Your task to perform on an android device: turn on bluetooth scan Image 0: 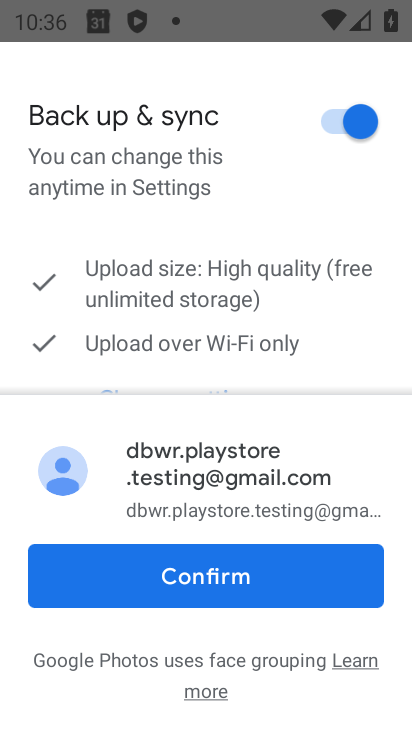
Step 0: press home button
Your task to perform on an android device: turn on bluetooth scan Image 1: 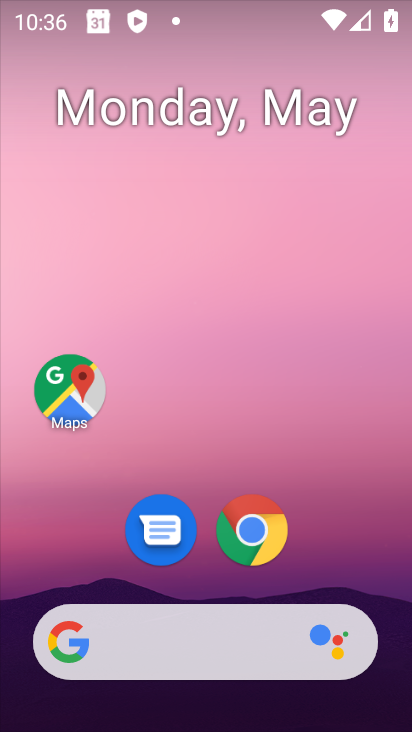
Step 1: drag from (331, 532) to (236, 112)
Your task to perform on an android device: turn on bluetooth scan Image 2: 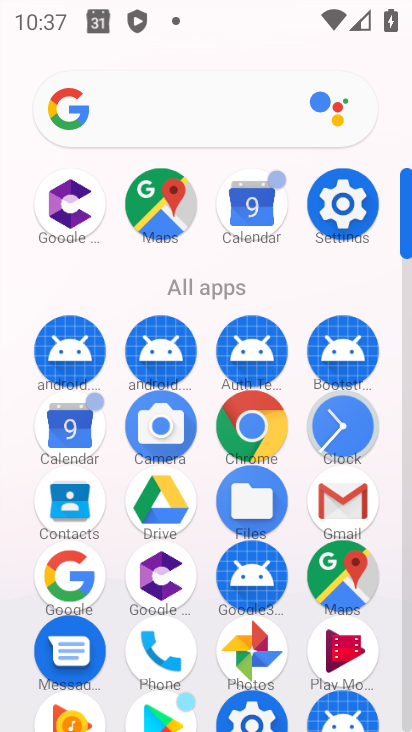
Step 2: click (340, 206)
Your task to perform on an android device: turn on bluetooth scan Image 3: 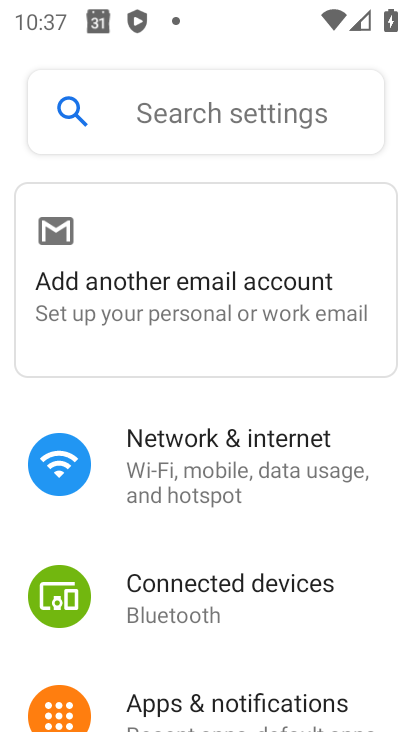
Step 3: drag from (278, 537) to (295, 334)
Your task to perform on an android device: turn on bluetooth scan Image 4: 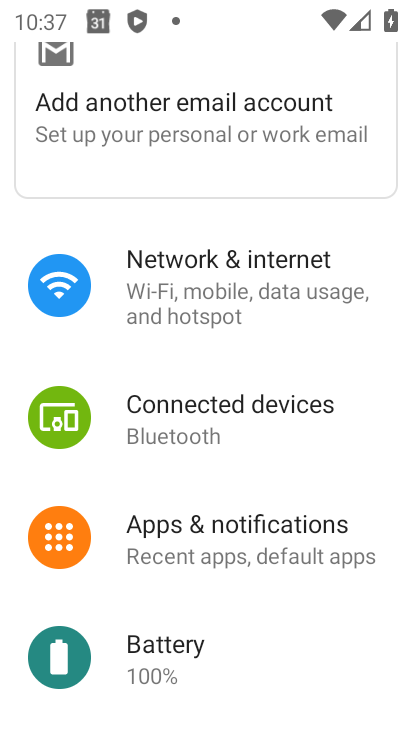
Step 4: drag from (254, 468) to (280, 332)
Your task to perform on an android device: turn on bluetooth scan Image 5: 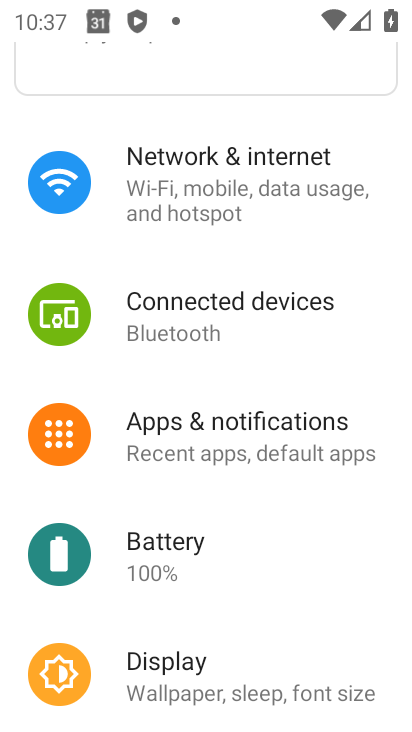
Step 5: drag from (238, 517) to (266, 373)
Your task to perform on an android device: turn on bluetooth scan Image 6: 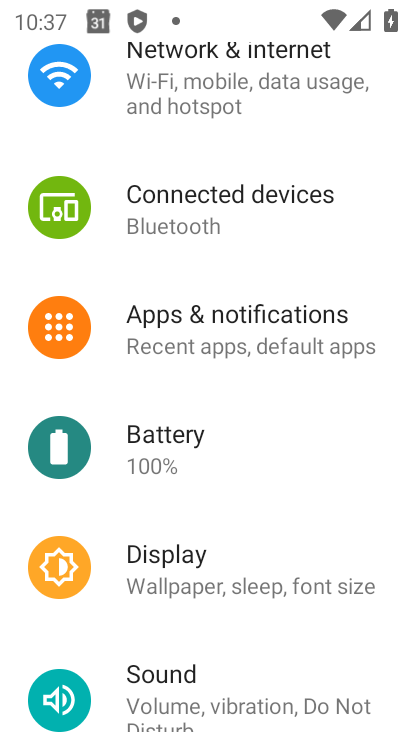
Step 6: drag from (225, 507) to (243, 348)
Your task to perform on an android device: turn on bluetooth scan Image 7: 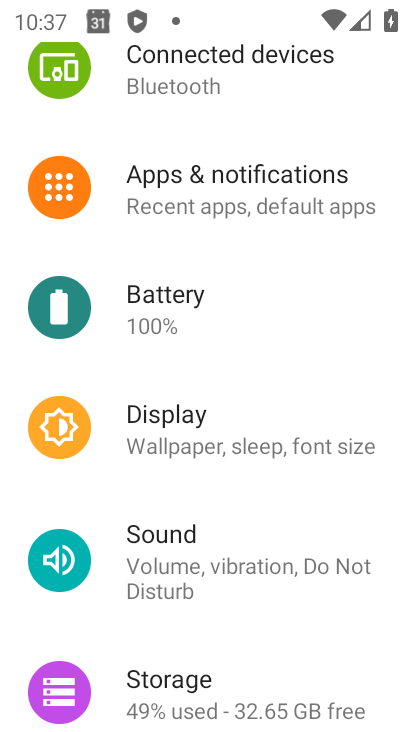
Step 7: drag from (226, 369) to (258, 257)
Your task to perform on an android device: turn on bluetooth scan Image 8: 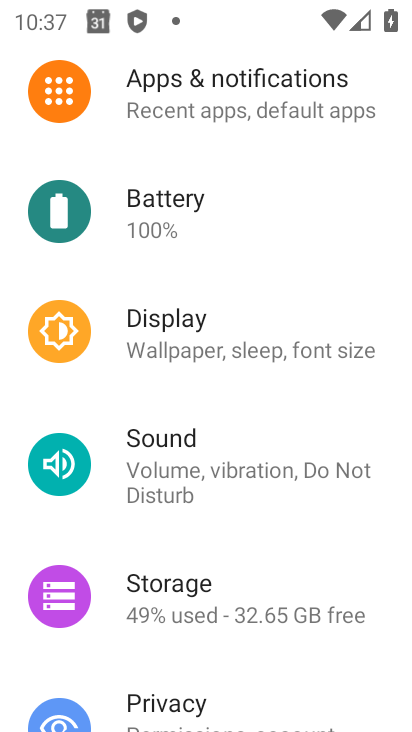
Step 8: drag from (234, 427) to (269, 276)
Your task to perform on an android device: turn on bluetooth scan Image 9: 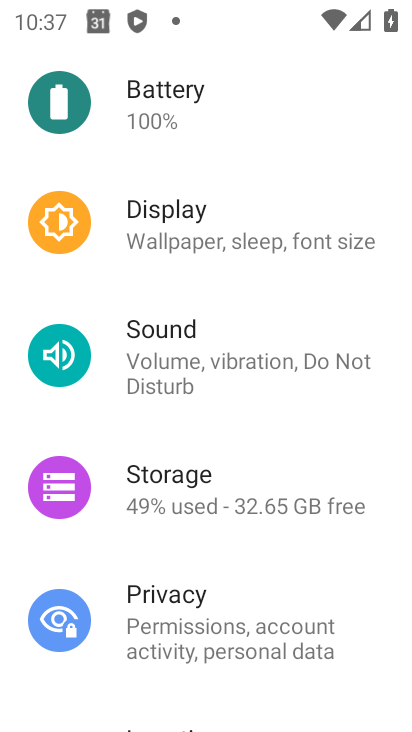
Step 9: drag from (221, 435) to (268, 293)
Your task to perform on an android device: turn on bluetooth scan Image 10: 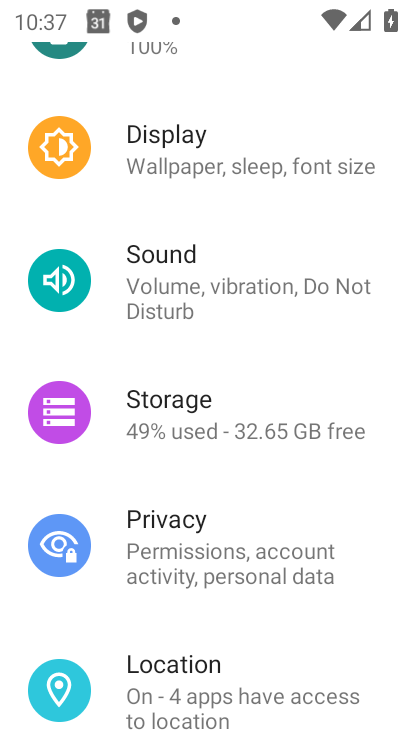
Step 10: drag from (252, 468) to (273, 308)
Your task to perform on an android device: turn on bluetooth scan Image 11: 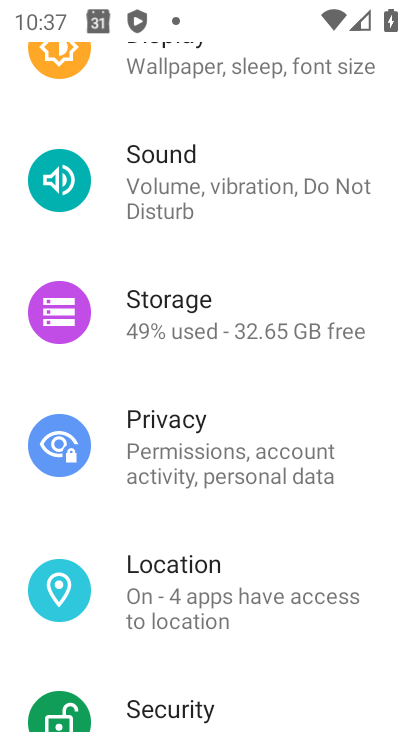
Step 11: click (178, 569)
Your task to perform on an android device: turn on bluetooth scan Image 12: 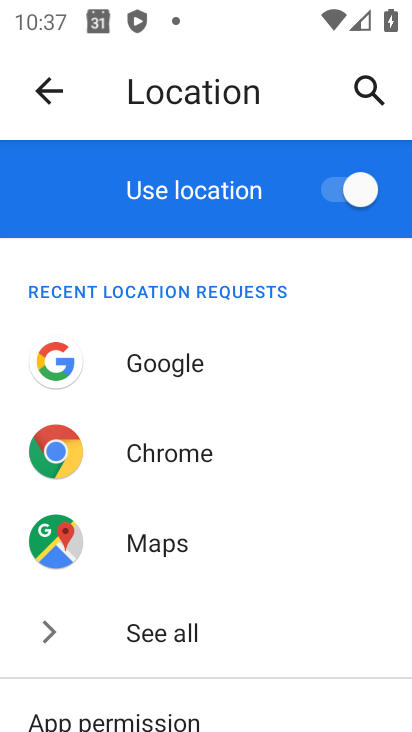
Step 12: drag from (242, 606) to (297, 428)
Your task to perform on an android device: turn on bluetooth scan Image 13: 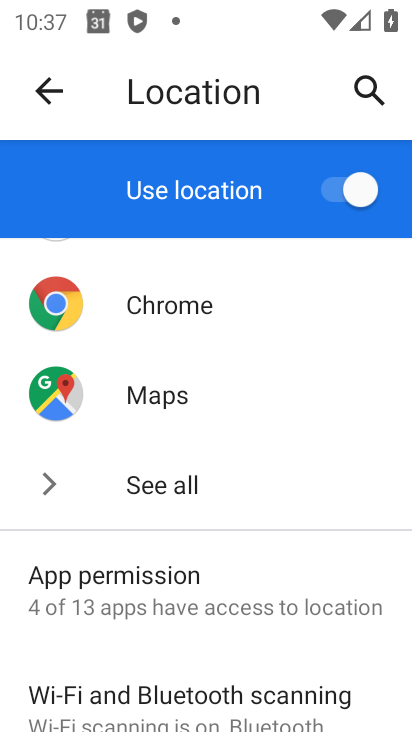
Step 13: drag from (241, 577) to (302, 422)
Your task to perform on an android device: turn on bluetooth scan Image 14: 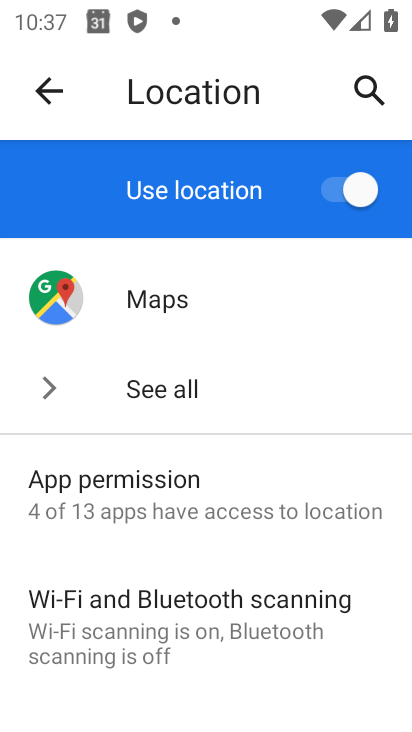
Step 14: click (222, 608)
Your task to perform on an android device: turn on bluetooth scan Image 15: 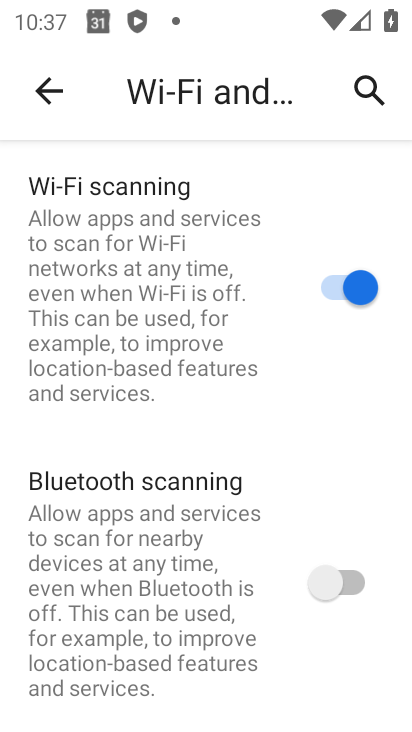
Step 15: click (327, 587)
Your task to perform on an android device: turn on bluetooth scan Image 16: 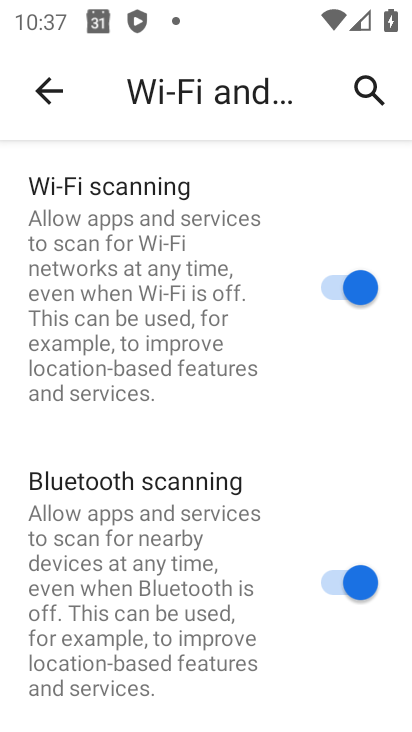
Step 16: task complete